Your task to perform on an android device: find which apps use the phone's location Image 0: 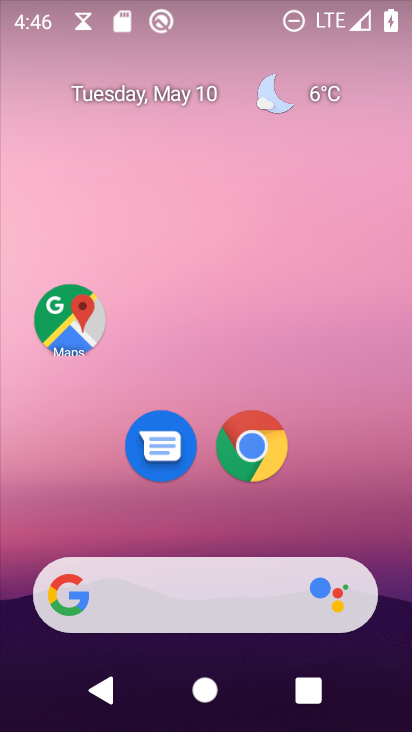
Step 0: drag from (281, 530) to (203, 113)
Your task to perform on an android device: find which apps use the phone's location Image 1: 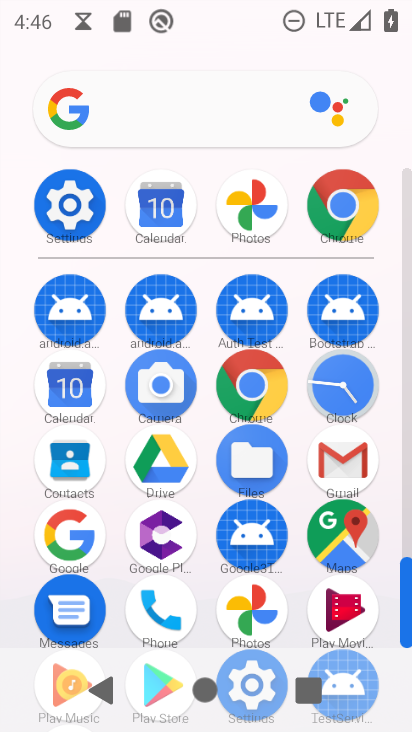
Step 1: click (78, 192)
Your task to perform on an android device: find which apps use the phone's location Image 2: 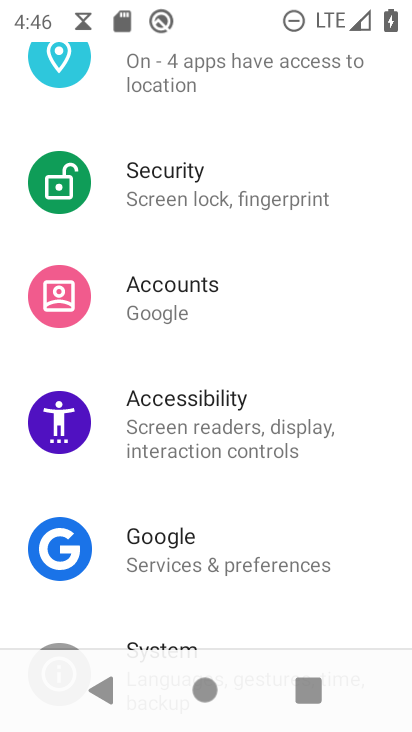
Step 2: click (202, 86)
Your task to perform on an android device: find which apps use the phone's location Image 3: 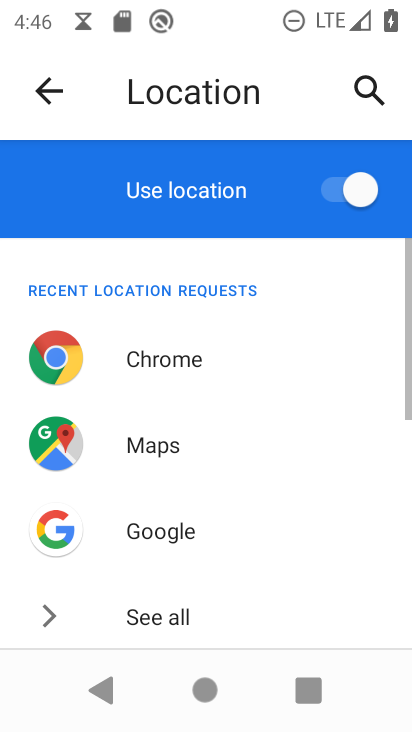
Step 3: drag from (238, 508) to (206, 248)
Your task to perform on an android device: find which apps use the phone's location Image 4: 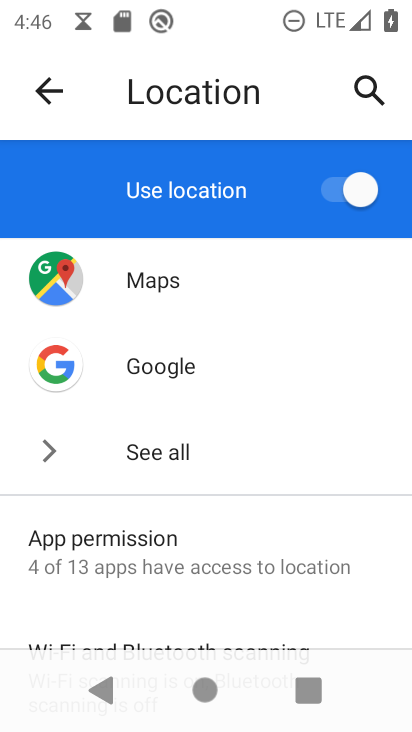
Step 4: click (178, 555)
Your task to perform on an android device: find which apps use the phone's location Image 5: 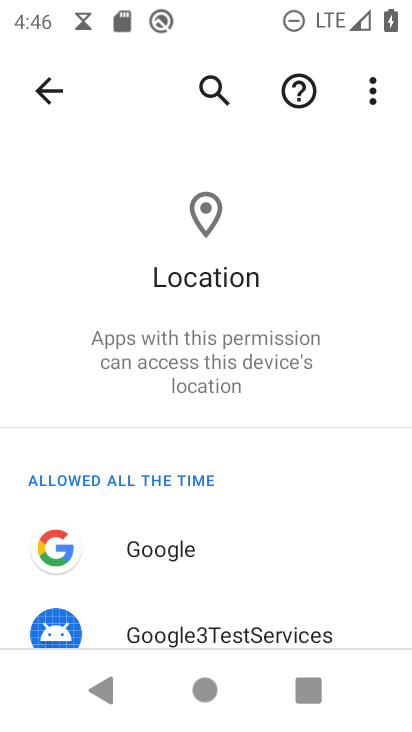
Step 5: task complete